Your task to perform on an android device: Go to display settings Image 0: 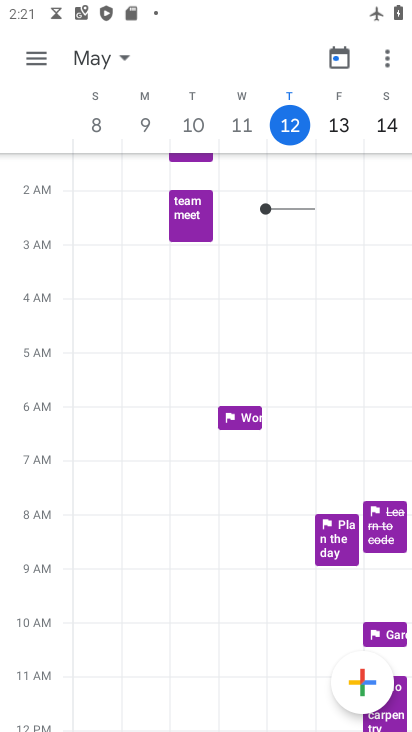
Step 0: press home button
Your task to perform on an android device: Go to display settings Image 1: 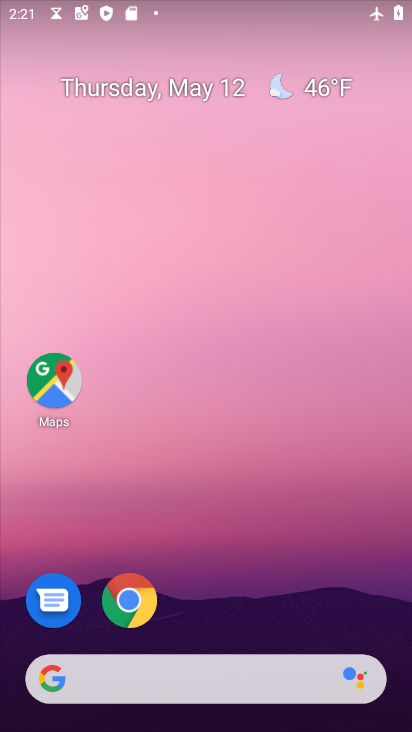
Step 1: drag from (264, 588) to (307, 0)
Your task to perform on an android device: Go to display settings Image 2: 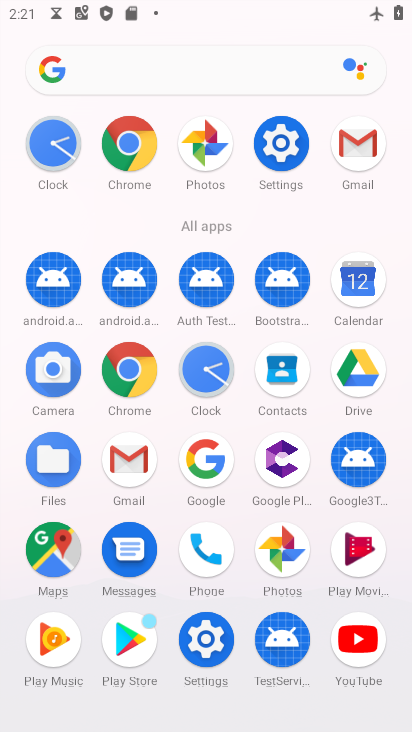
Step 2: click (212, 642)
Your task to perform on an android device: Go to display settings Image 3: 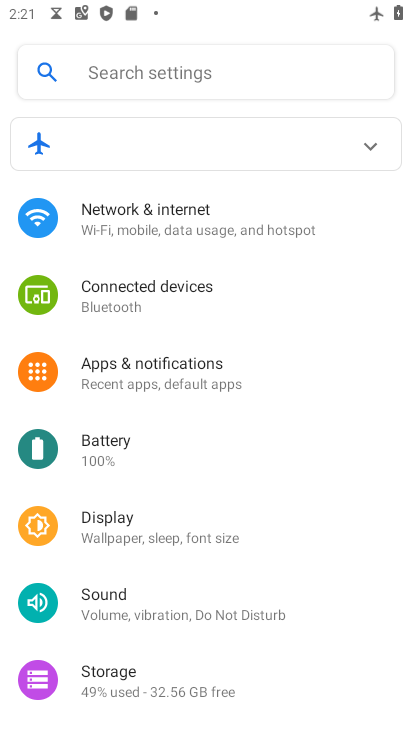
Step 3: click (161, 532)
Your task to perform on an android device: Go to display settings Image 4: 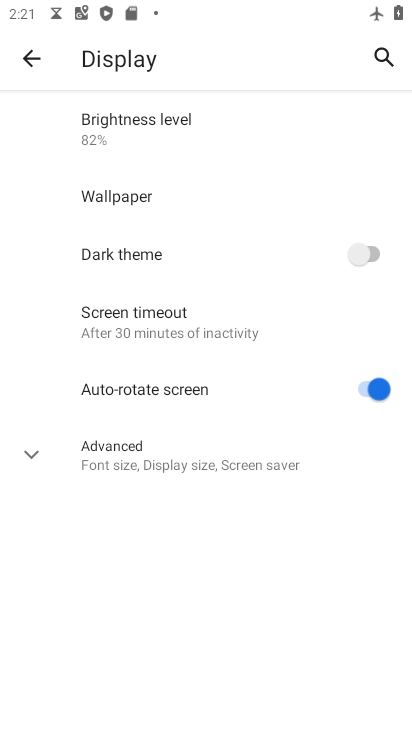
Step 4: task complete